Your task to perform on an android device: add a contact in the contacts app Image 0: 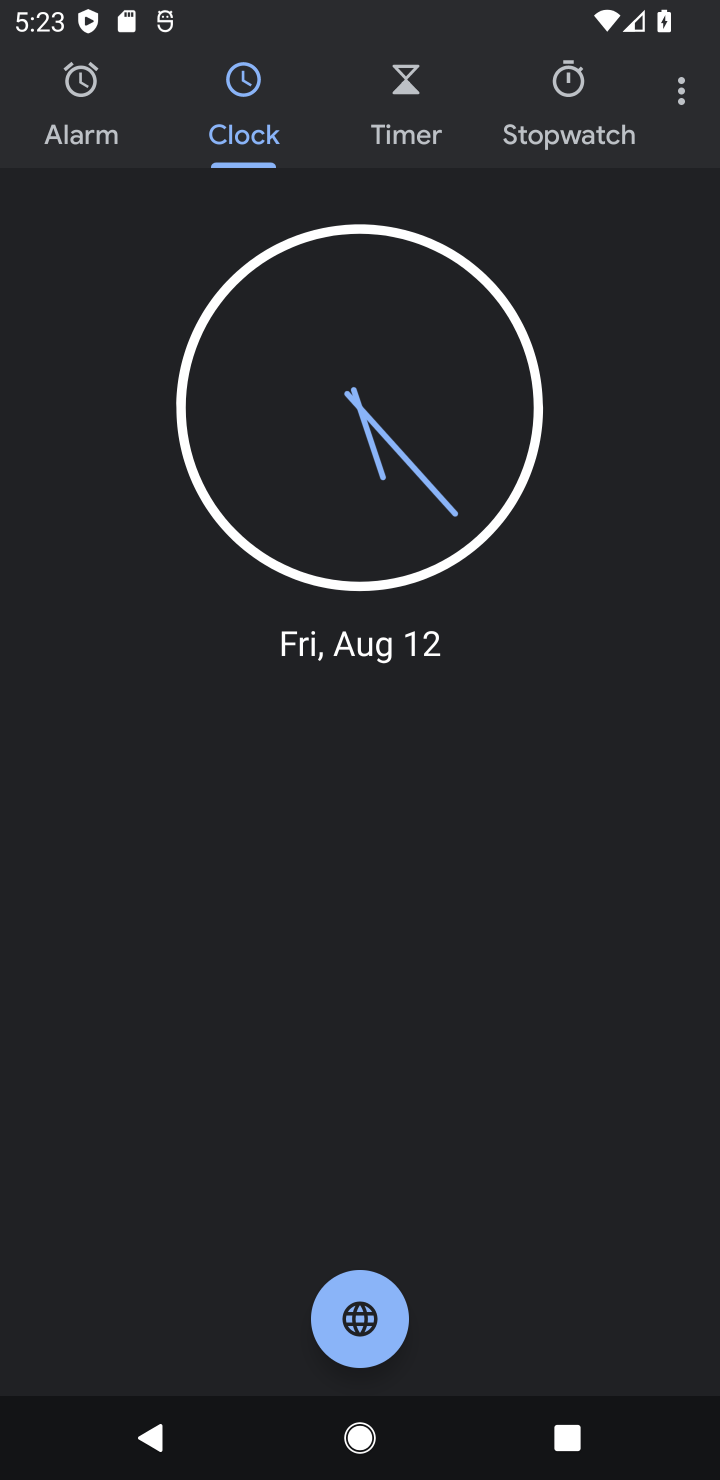
Step 0: press home button
Your task to perform on an android device: add a contact in the contacts app Image 1: 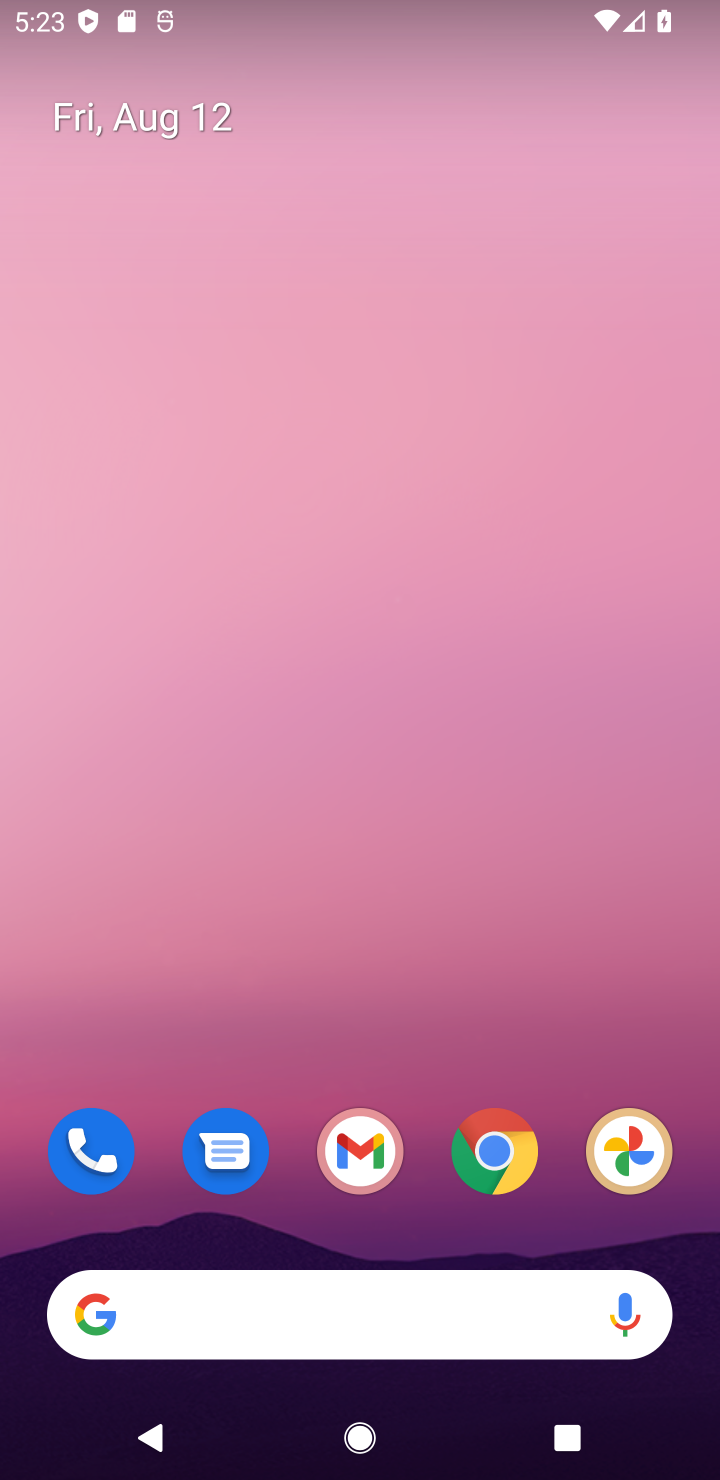
Step 1: drag from (493, 1024) to (496, 7)
Your task to perform on an android device: add a contact in the contacts app Image 2: 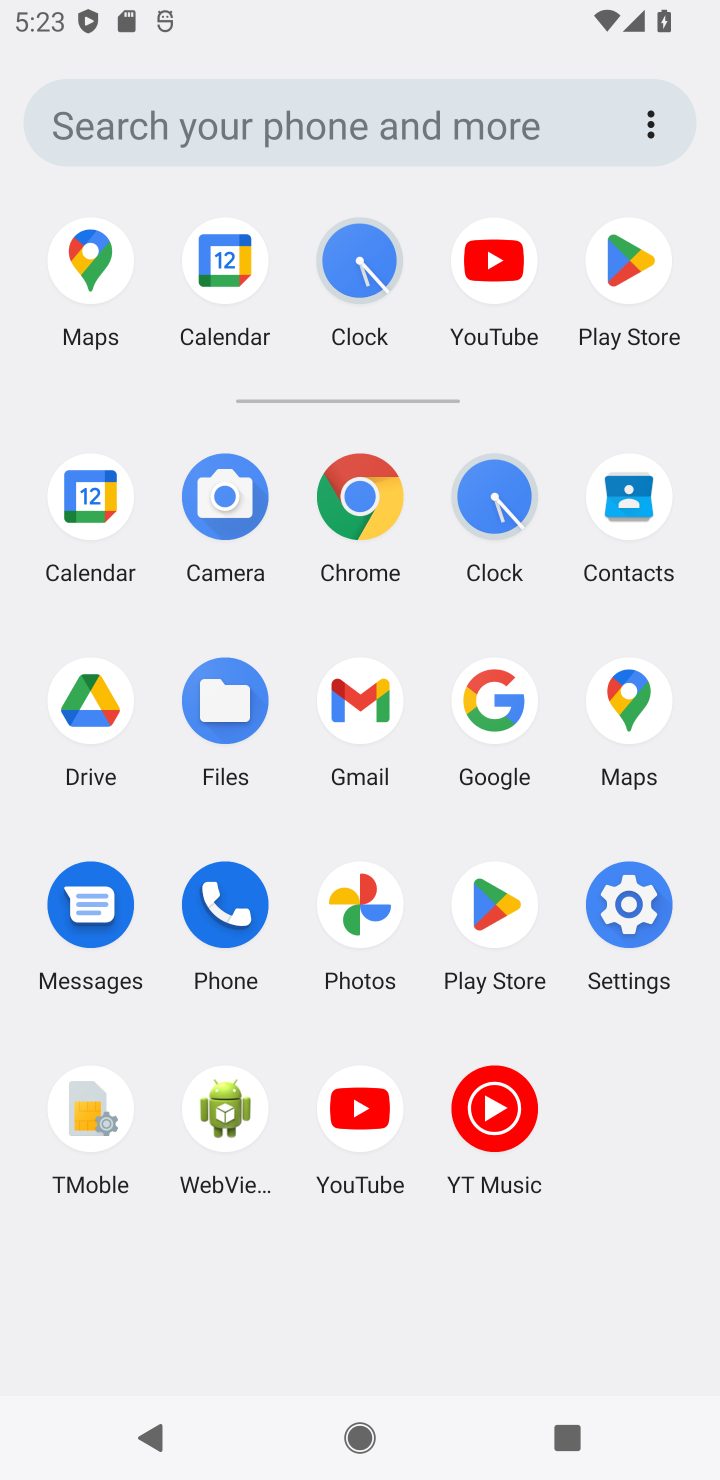
Step 2: click (630, 492)
Your task to perform on an android device: add a contact in the contacts app Image 3: 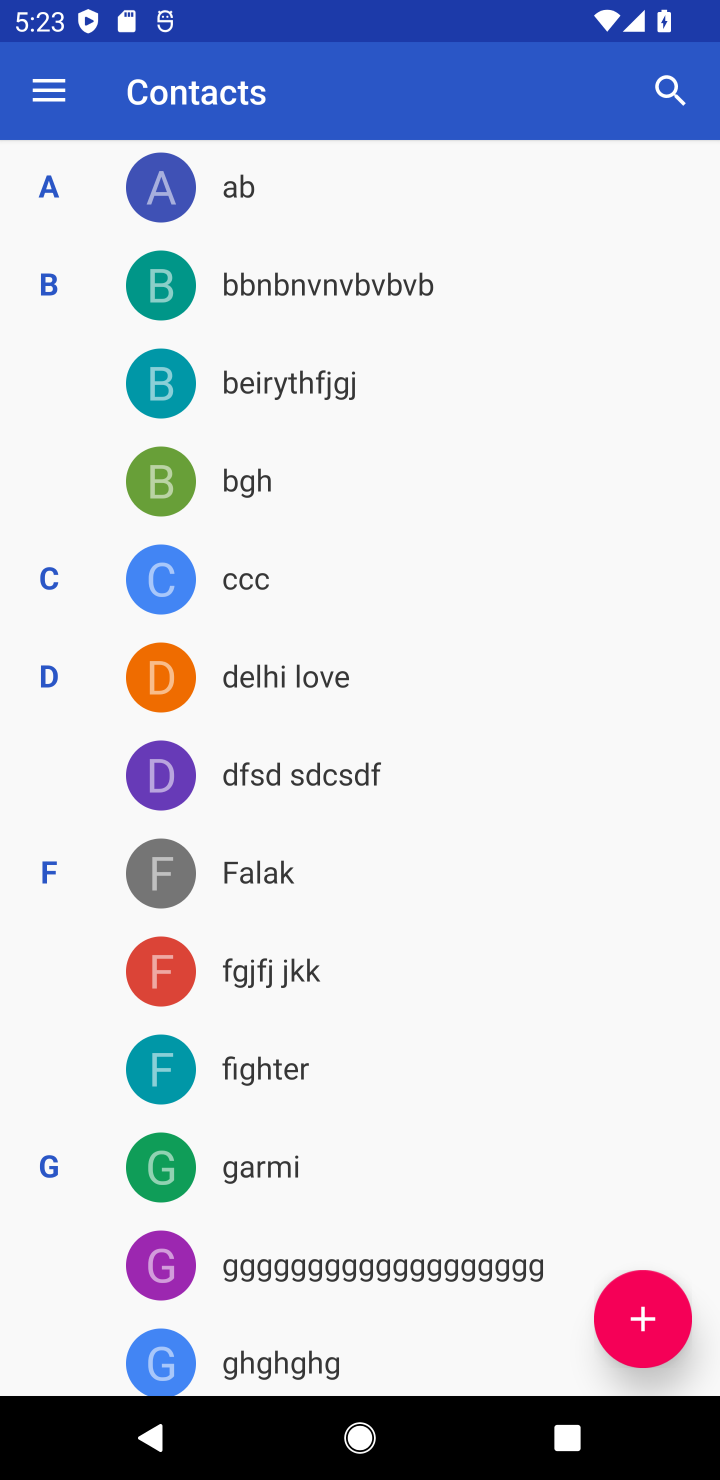
Step 3: click (650, 1318)
Your task to perform on an android device: add a contact in the contacts app Image 4: 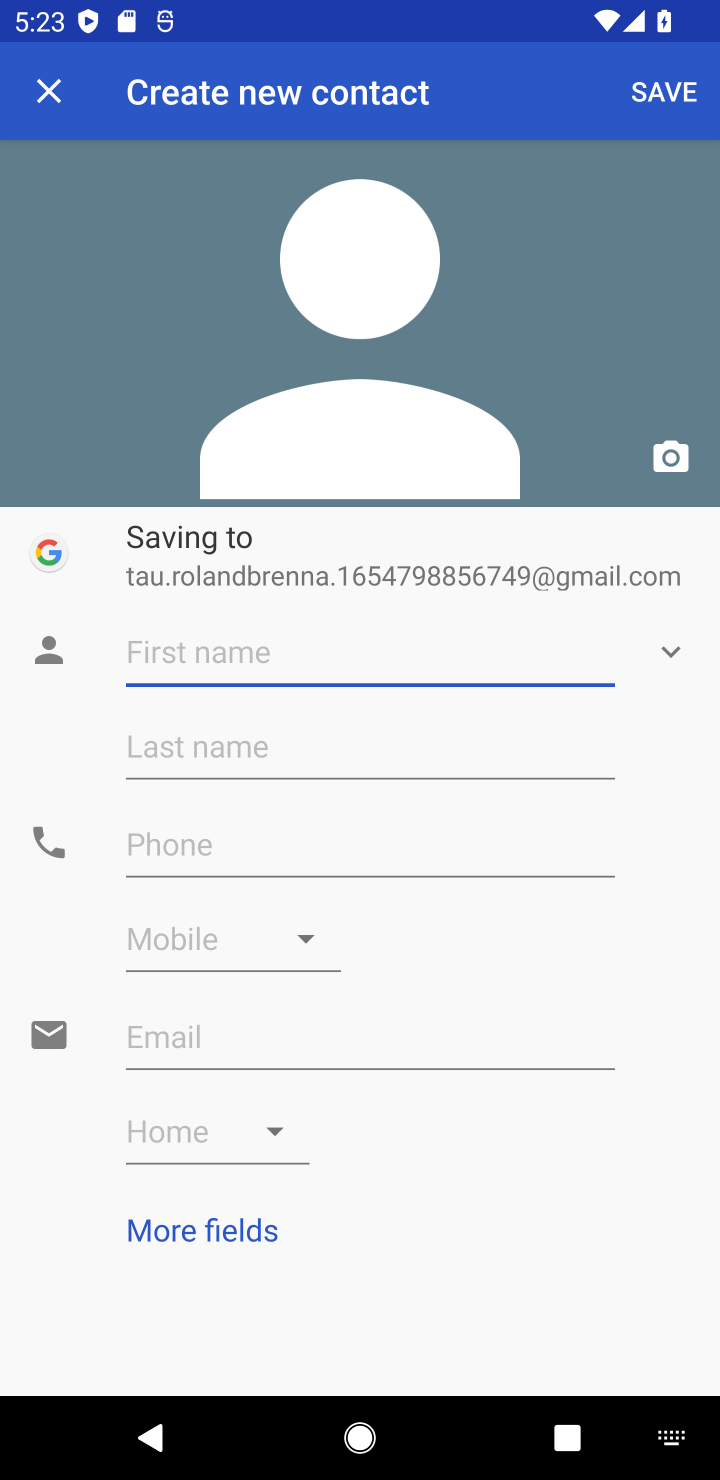
Step 4: click (390, 664)
Your task to perform on an android device: add a contact in the contacts app Image 5: 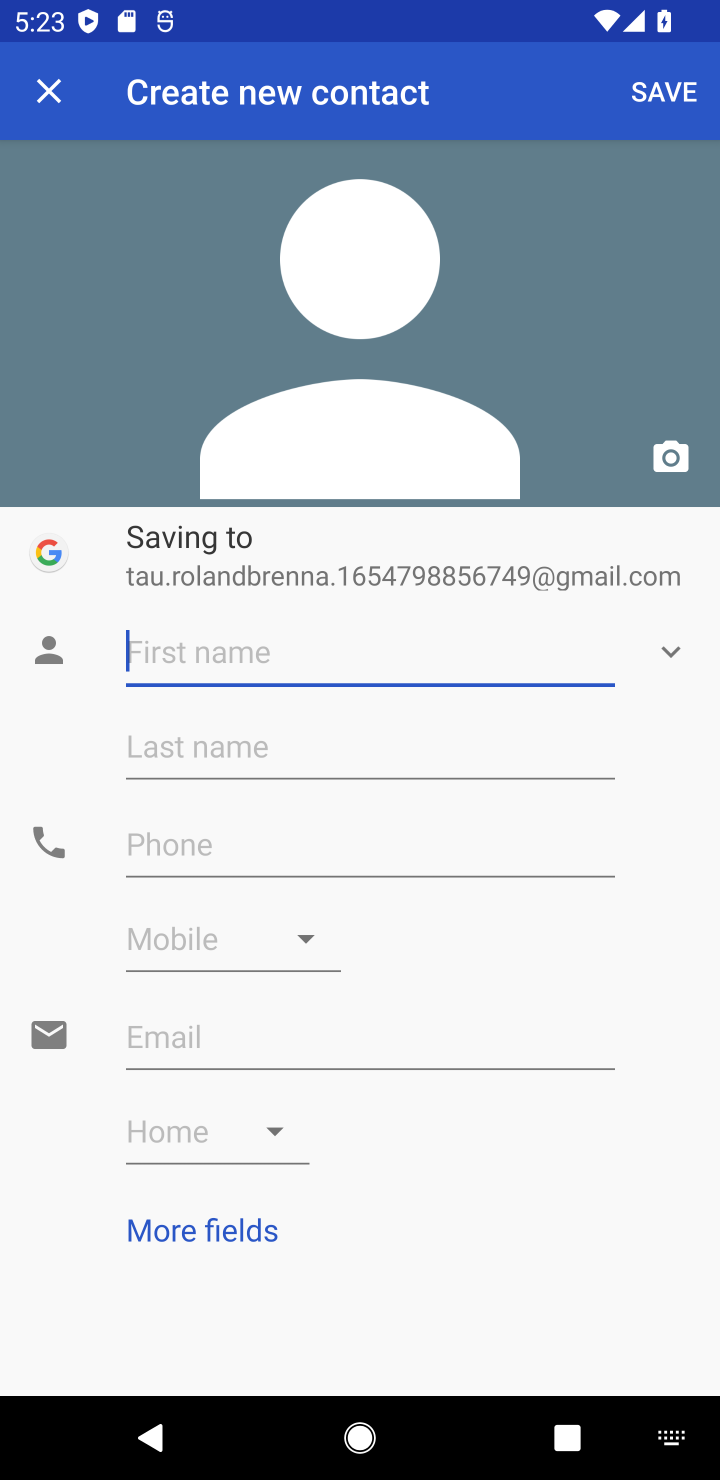
Step 5: type "polk"
Your task to perform on an android device: add a contact in the contacts app Image 6: 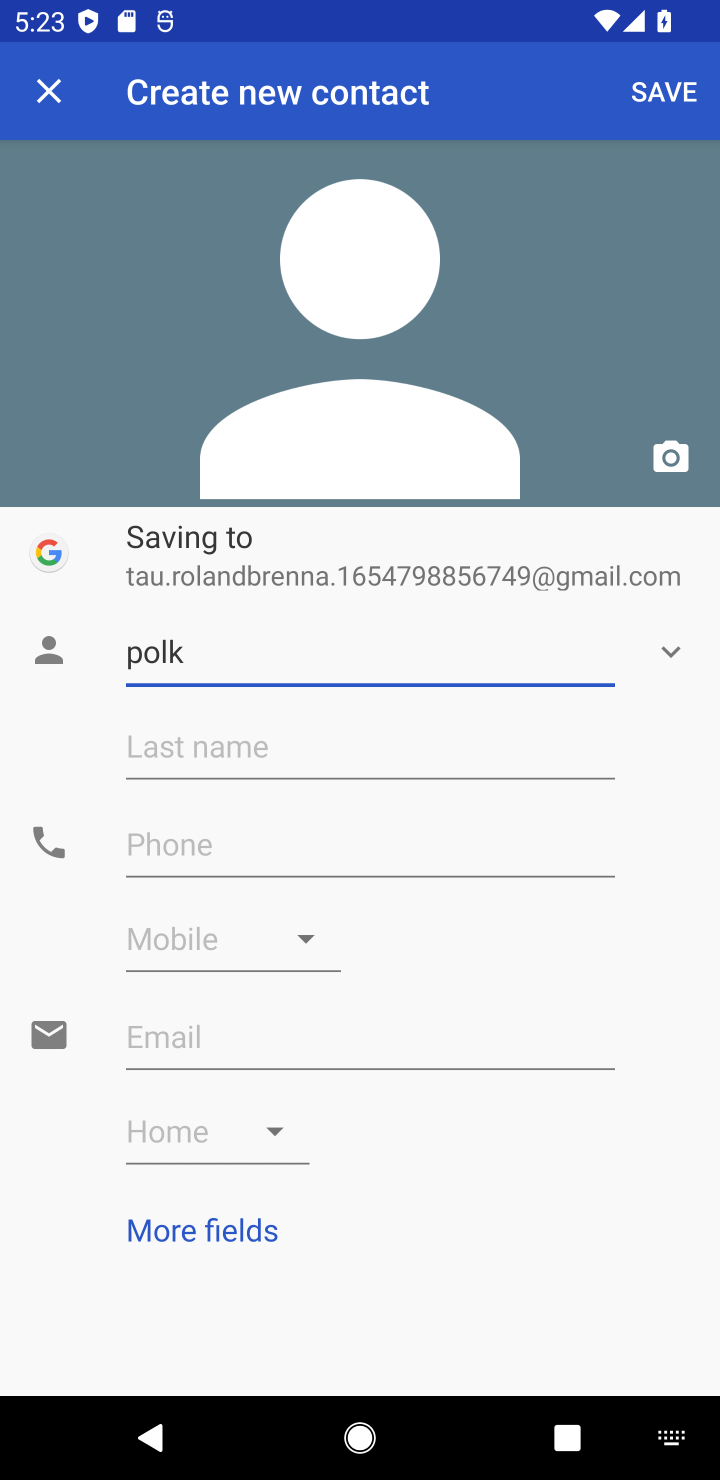
Step 6: click (658, 98)
Your task to perform on an android device: add a contact in the contacts app Image 7: 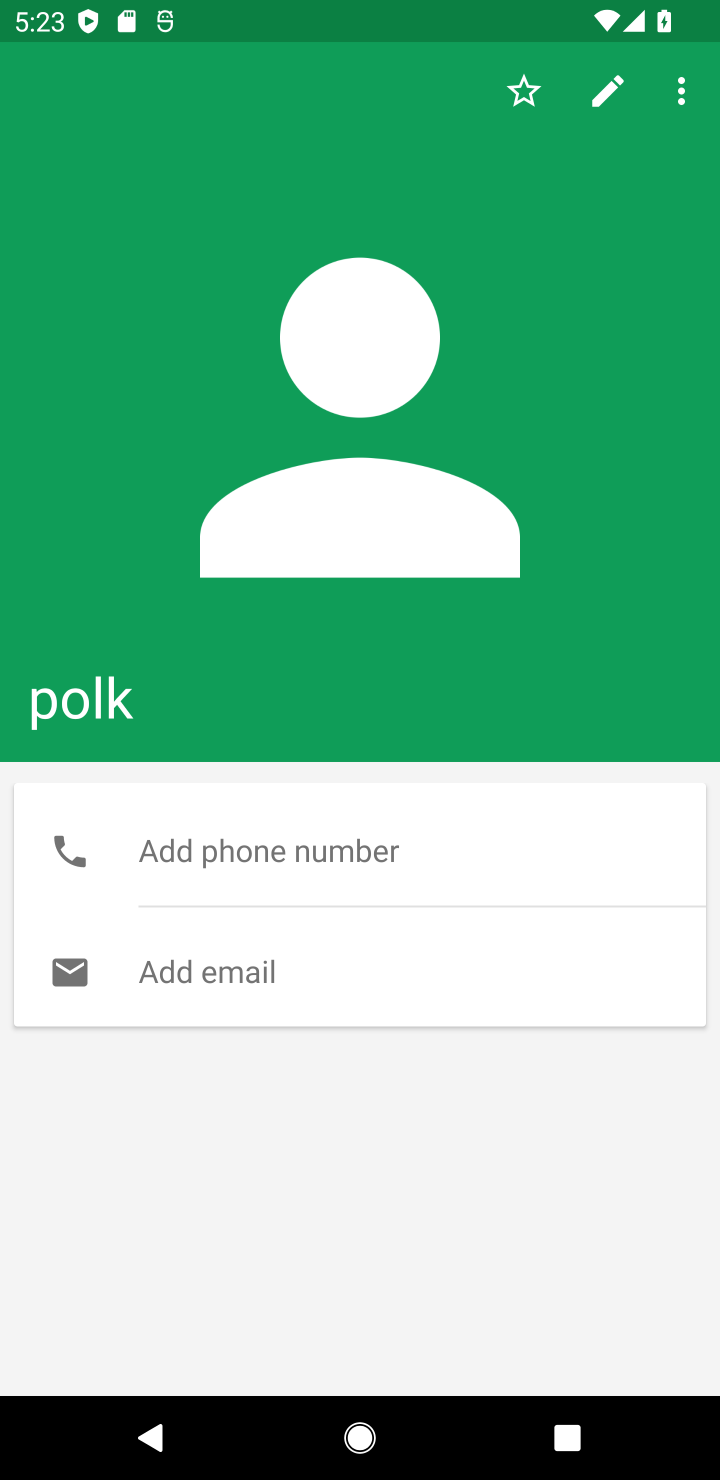
Step 7: task complete